Your task to perform on an android device: check data usage Image 0: 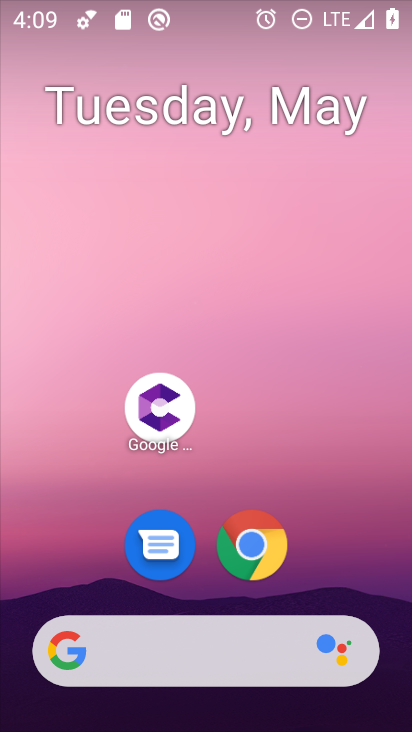
Step 0: drag from (383, 581) to (361, 157)
Your task to perform on an android device: check data usage Image 1: 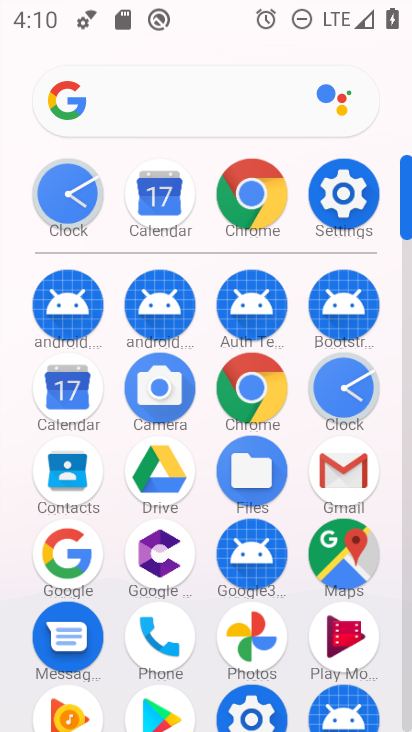
Step 1: click (359, 209)
Your task to perform on an android device: check data usage Image 2: 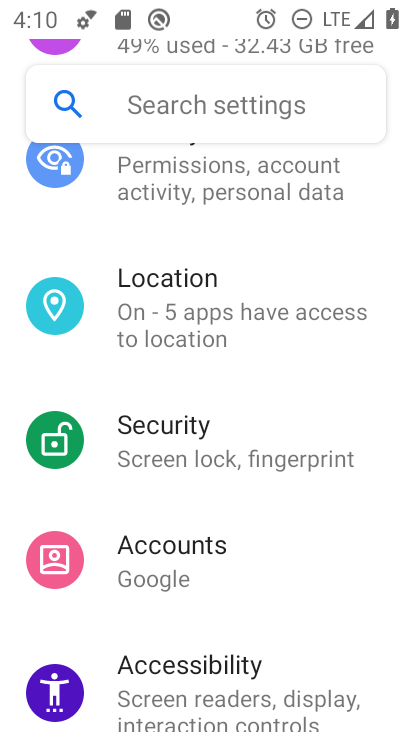
Step 2: drag from (354, 582) to (375, 490)
Your task to perform on an android device: check data usage Image 3: 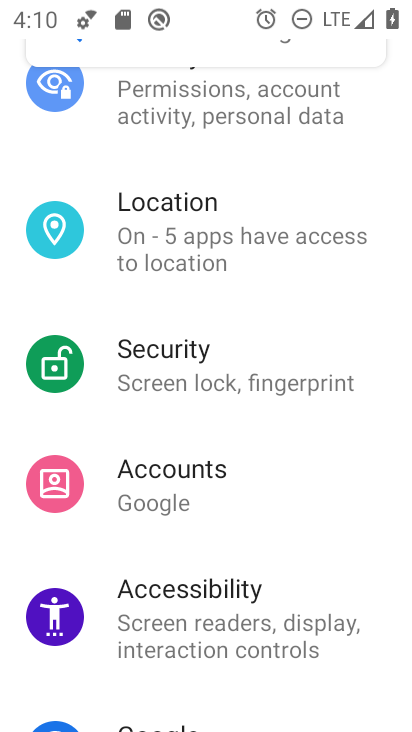
Step 3: drag from (357, 612) to (363, 477)
Your task to perform on an android device: check data usage Image 4: 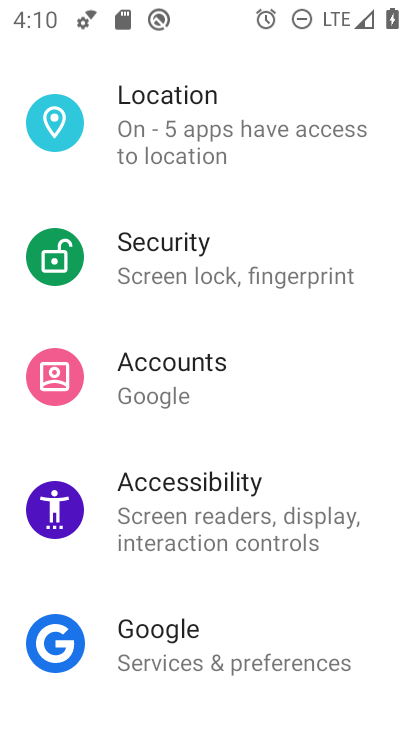
Step 4: drag from (345, 616) to (356, 464)
Your task to perform on an android device: check data usage Image 5: 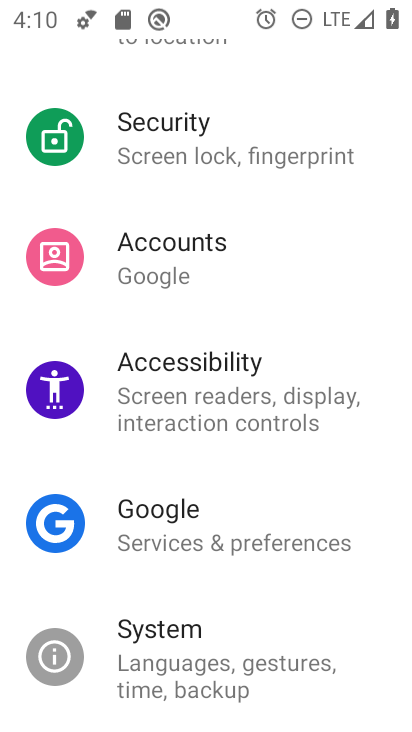
Step 5: drag from (337, 619) to (355, 452)
Your task to perform on an android device: check data usage Image 6: 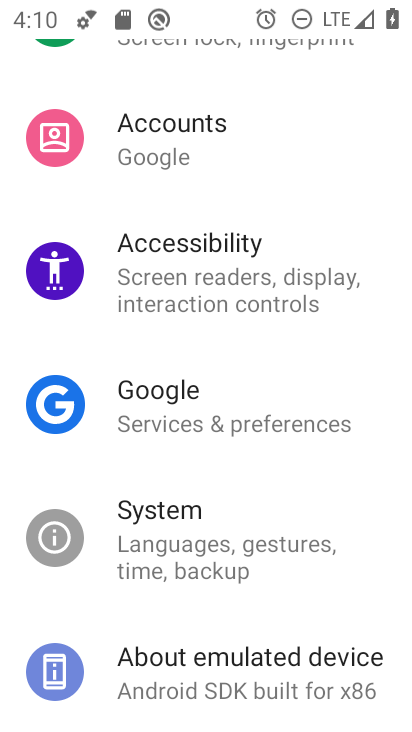
Step 6: drag from (388, 338) to (378, 428)
Your task to perform on an android device: check data usage Image 7: 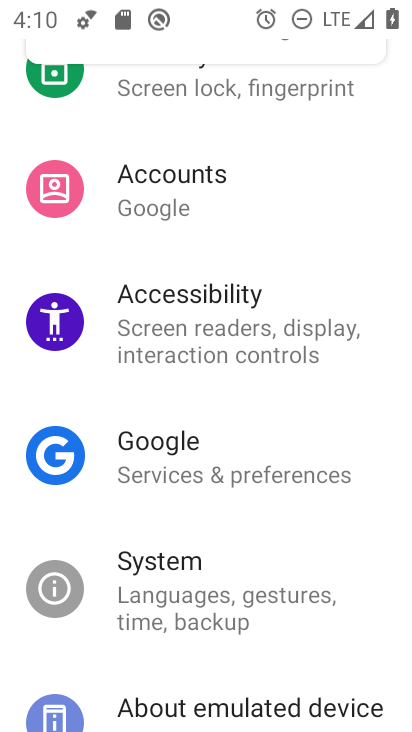
Step 7: drag from (385, 269) to (379, 373)
Your task to perform on an android device: check data usage Image 8: 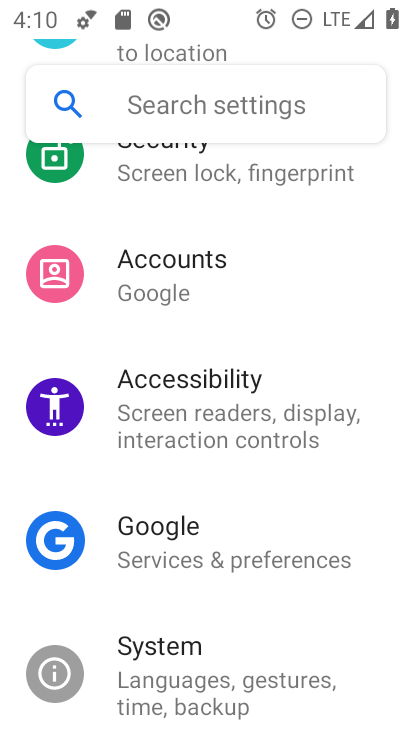
Step 8: drag from (358, 257) to (363, 319)
Your task to perform on an android device: check data usage Image 9: 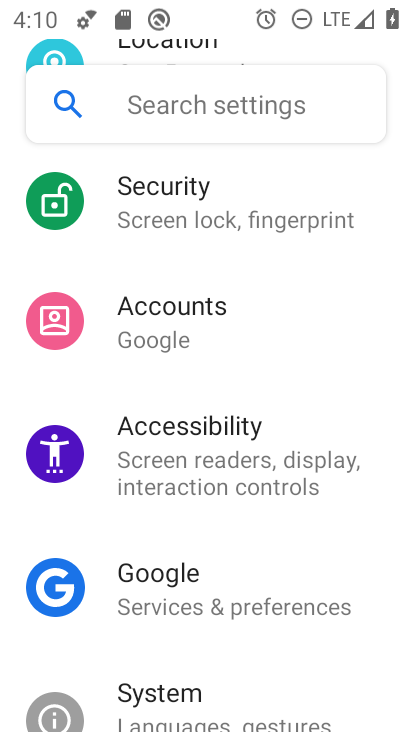
Step 9: drag from (362, 311) to (360, 388)
Your task to perform on an android device: check data usage Image 10: 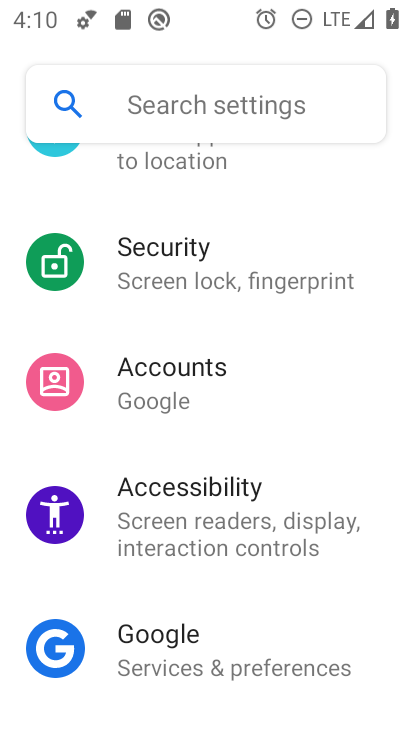
Step 10: drag from (375, 375) to (380, 561)
Your task to perform on an android device: check data usage Image 11: 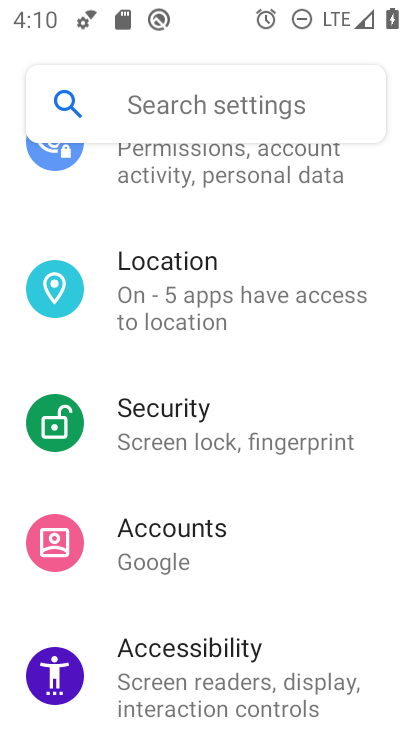
Step 11: drag from (362, 344) to (374, 491)
Your task to perform on an android device: check data usage Image 12: 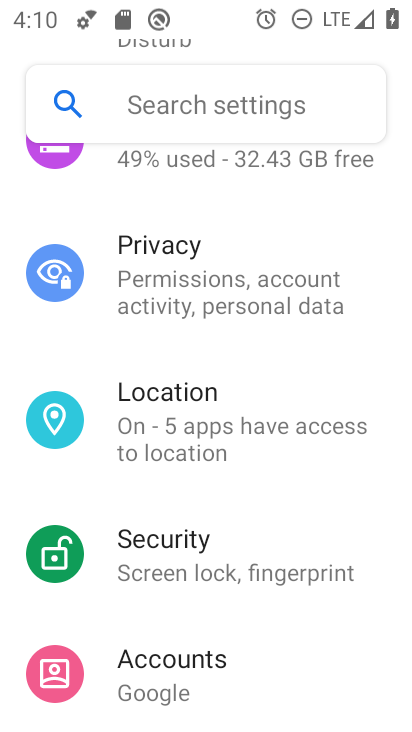
Step 12: drag from (364, 360) to (355, 525)
Your task to perform on an android device: check data usage Image 13: 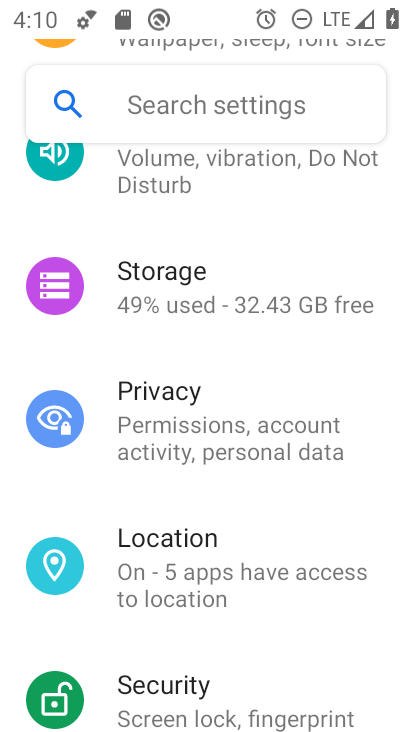
Step 13: drag from (384, 354) to (379, 460)
Your task to perform on an android device: check data usage Image 14: 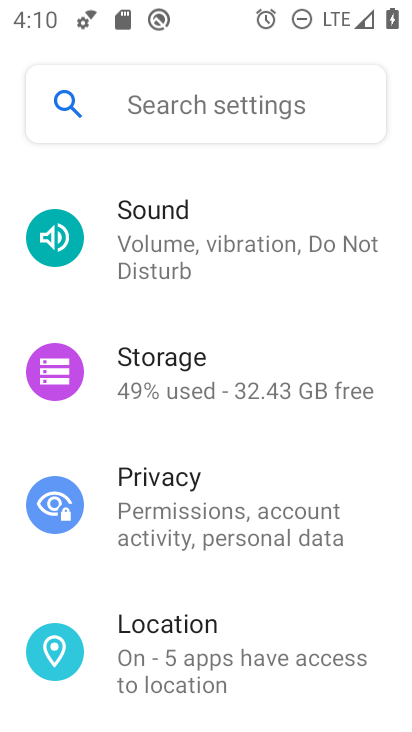
Step 14: drag from (384, 335) to (379, 487)
Your task to perform on an android device: check data usage Image 15: 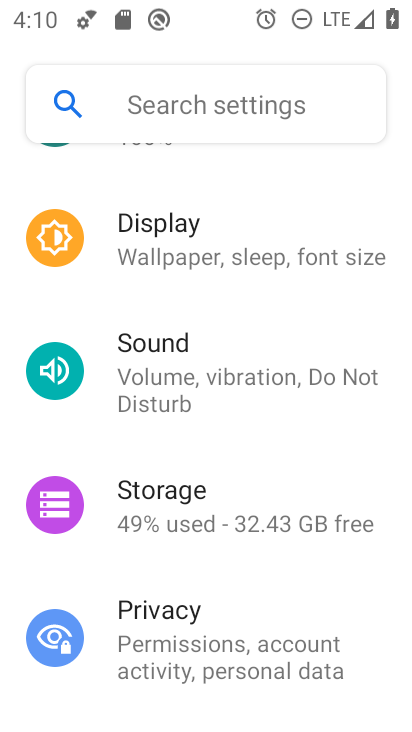
Step 15: drag from (388, 365) to (378, 489)
Your task to perform on an android device: check data usage Image 16: 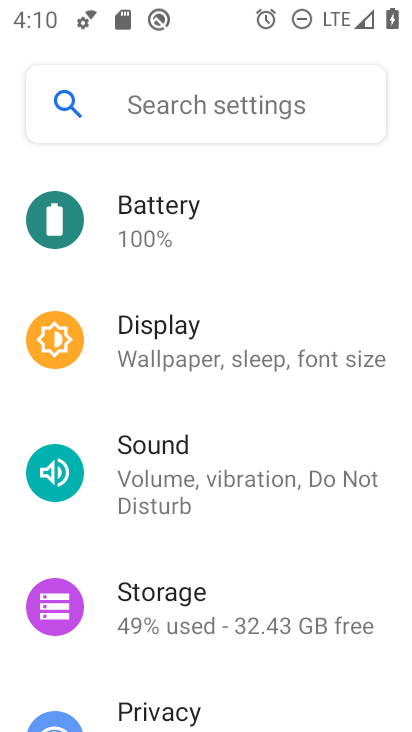
Step 16: drag from (363, 259) to (369, 409)
Your task to perform on an android device: check data usage Image 17: 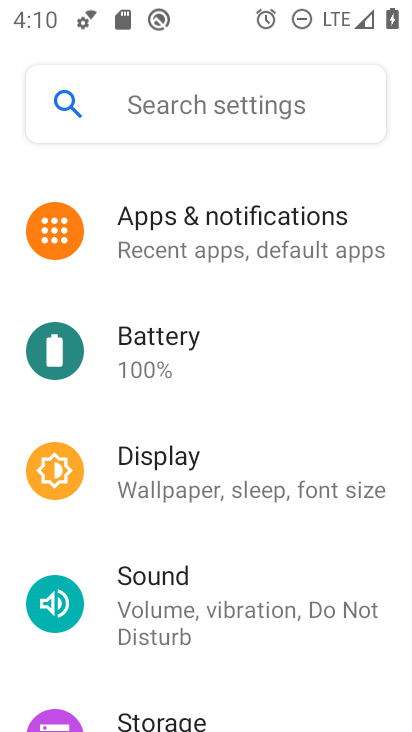
Step 17: drag from (383, 213) to (376, 411)
Your task to perform on an android device: check data usage Image 18: 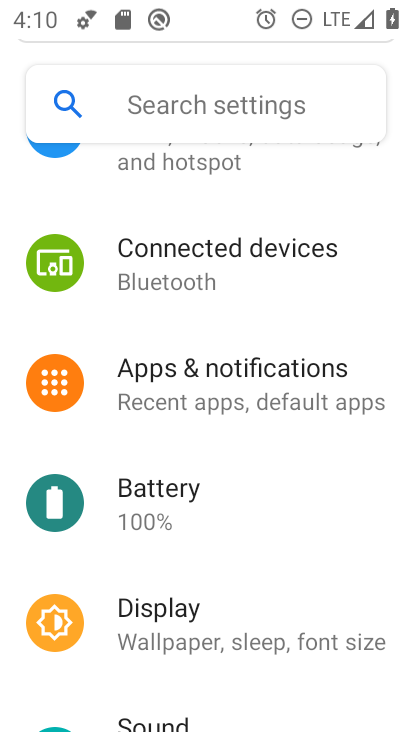
Step 18: drag from (352, 214) to (362, 352)
Your task to perform on an android device: check data usage Image 19: 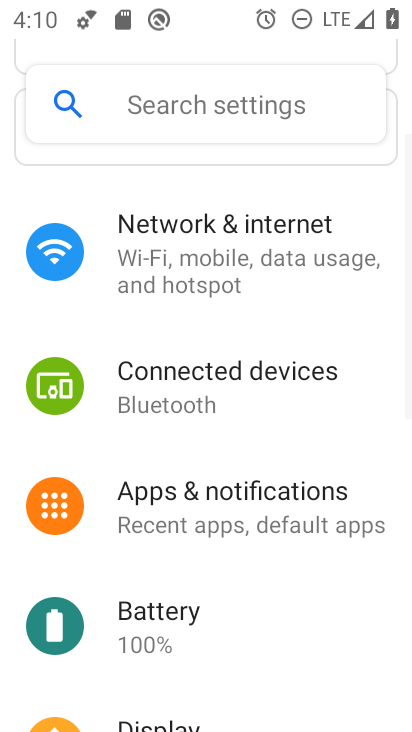
Step 19: click (323, 258)
Your task to perform on an android device: check data usage Image 20: 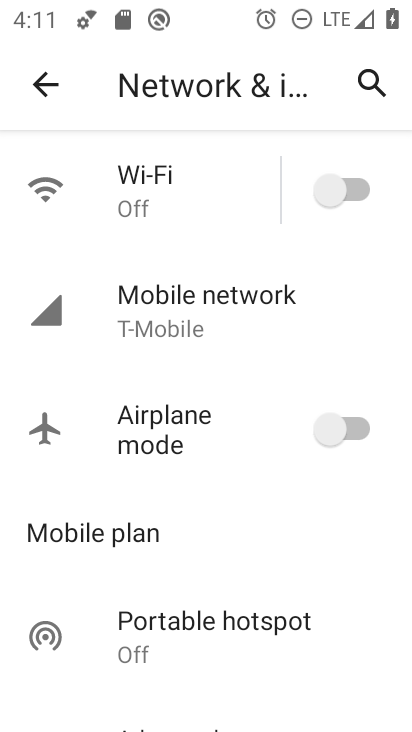
Step 20: click (223, 332)
Your task to perform on an android device: check data usage Image 21: 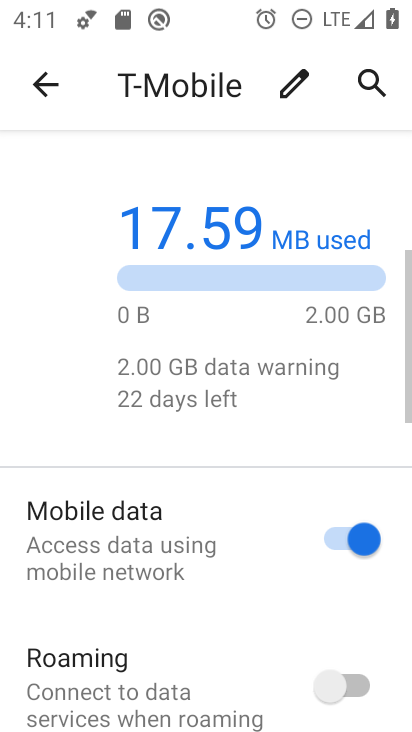
Step 21: drag from (220, 517) to (250, 353)
Your task to perform on an android device: check data usage Image 22: 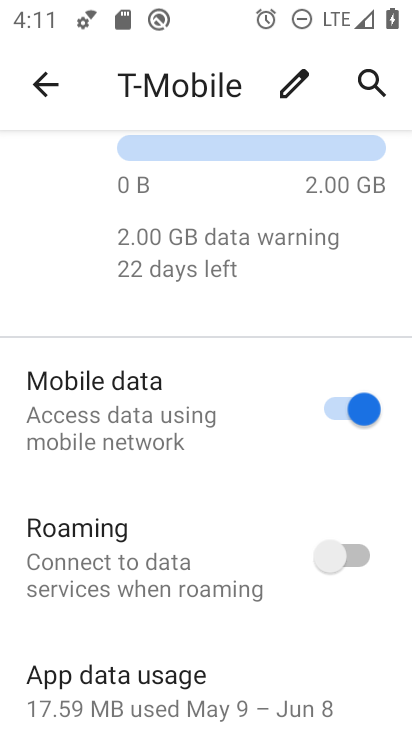
Step 22: drag from (228, 526) to (250, 359)
Your task to perform on an android device: check data usage Image 23: 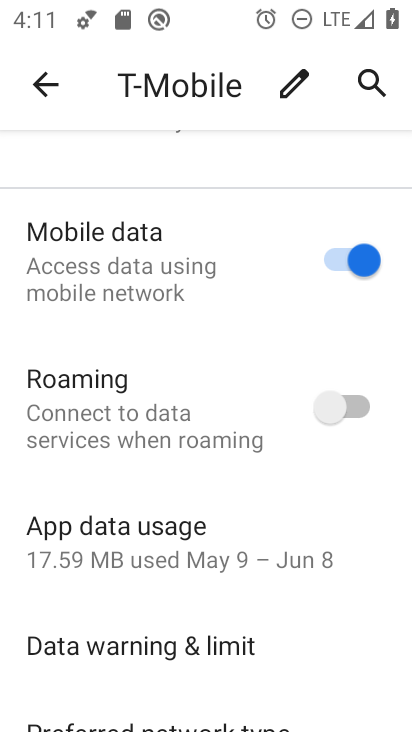
Step 23: click (211, 580)
Your task to perform on an android device: check data usage Image 24: 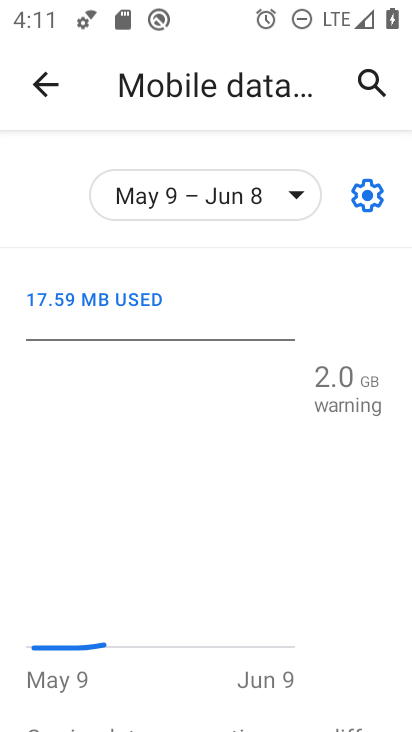
Step 24: task complete